Your task to perform on an android device: Open sound settings Image 0: 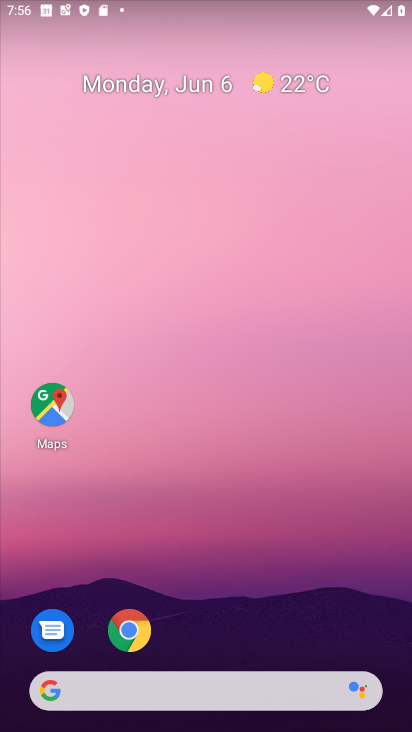
Step 0: drag from (131, 724) to (119, 49)
Your task to perform on an android device: Open sound settings Image 1: 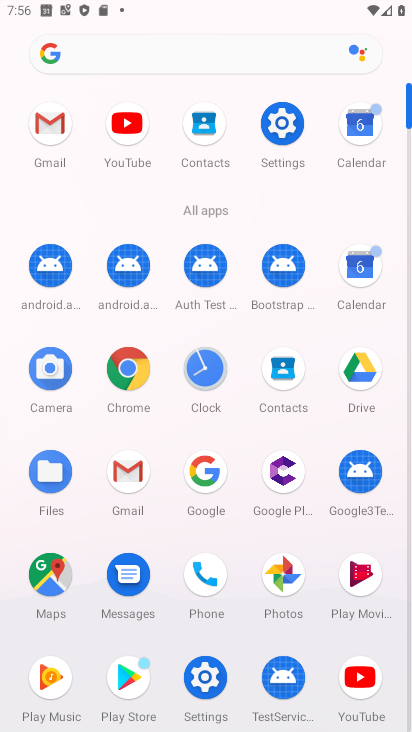
Step 1: click (275, 127)
Your task to perform on an android device: Open sound settings Image 2: 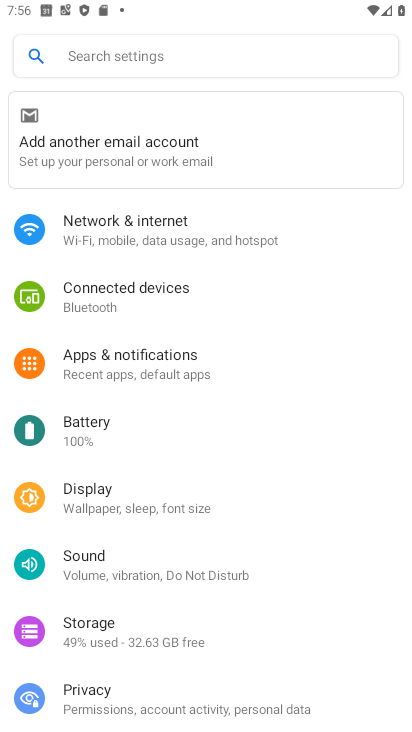
Step 2: click (134, 577)
Your task to perform on an android device: Open sound settings Image 3: 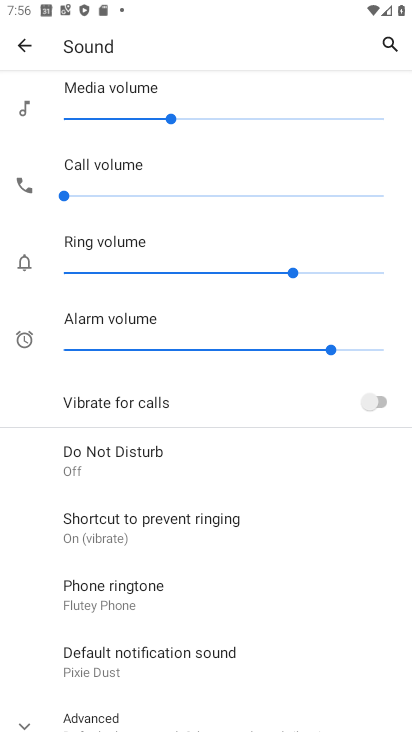
Step 3: task complete